Your task to perform on an android device: turn on the 24-hour format for clock Image 0: 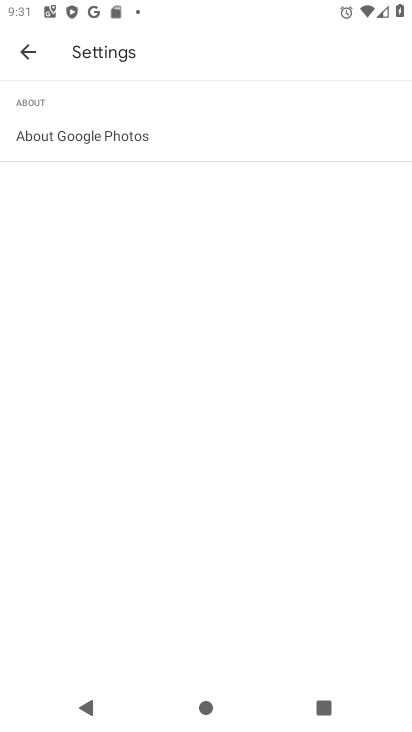
Step 0: press home button
Your task to perform on an android device: turn on the 24-hour format for clock Image 1: 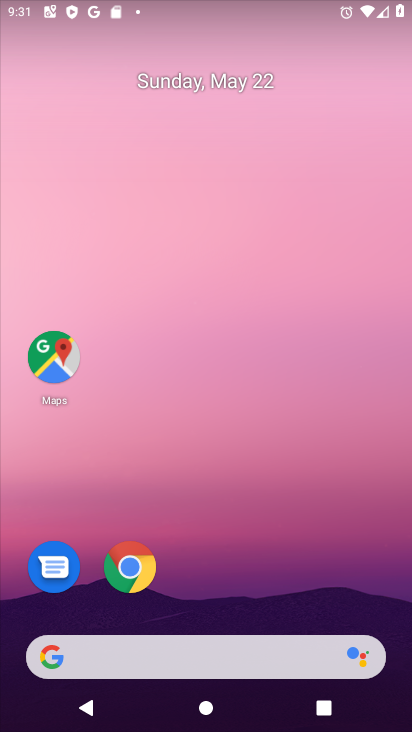
Step 1: drag from (237, 485) to (254, 104)
Your task to perform on an android device: turn on the 24-hour format for clock Image 2: 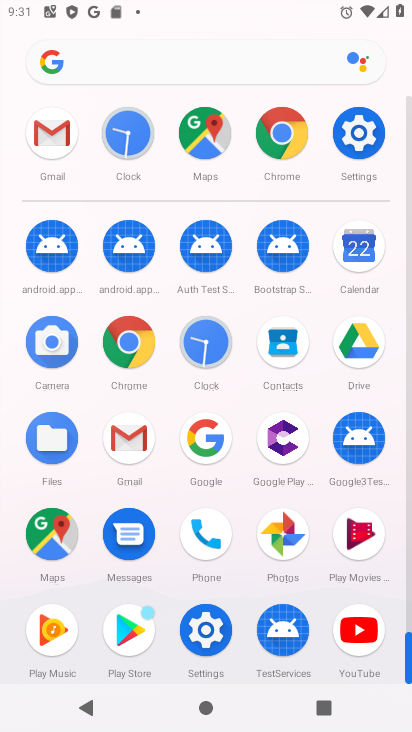
Step 2: click (194, 343)
Your task to perform on an android device: turn on the 24-hour format for clock Image 3: 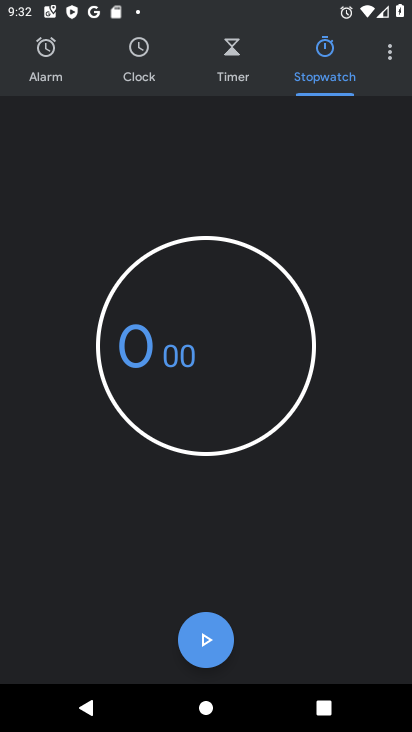
Step 3: press home button
Your task to perform on an android device: turn on the 24-hour format for clock Image 4: 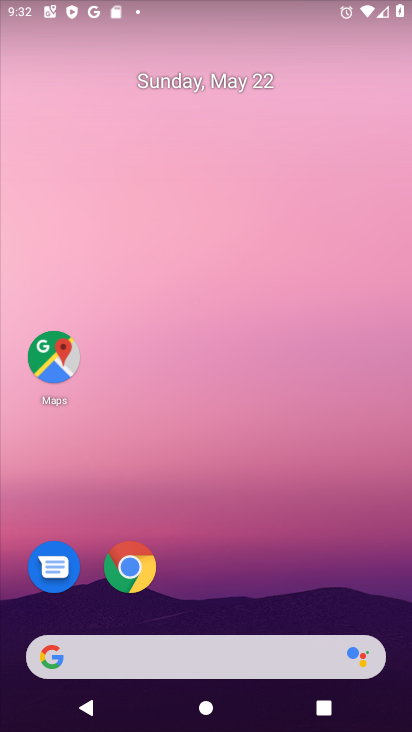
Step 4: drag from (212, 587) to (402, 444)
Your task to perform on an android device: turn on the 24-hour format for clock Image 5: 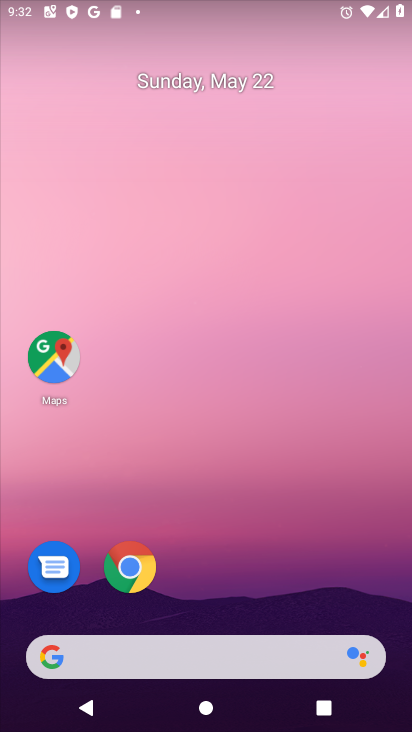
Step 5: drag from (224, 574) to (241, 2)
Your task to perform on an android device: turn on the 24-hour format for clock Image 6: 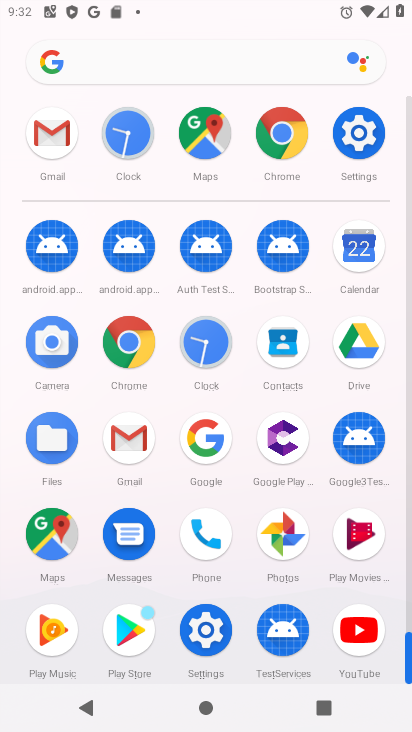
Step 6: click (373, 169)
Your task to perform on an android device: turn on the 24-hour format for clock Image 7: 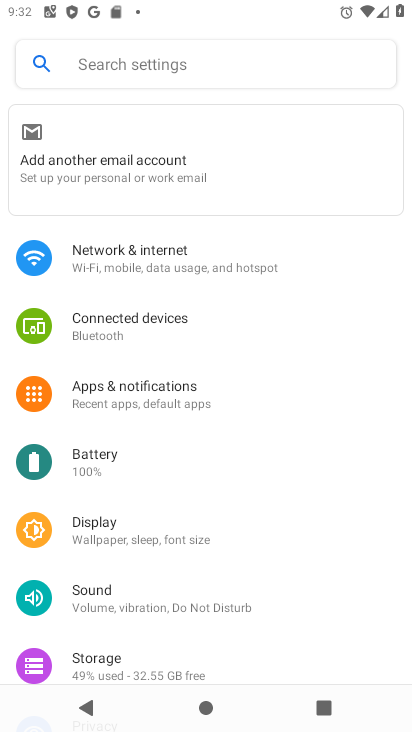
Step 7: drag from (114, 603) to (163, 115)
Your task to perform on an android device: turn on the 24-hour format for clock Image 8: 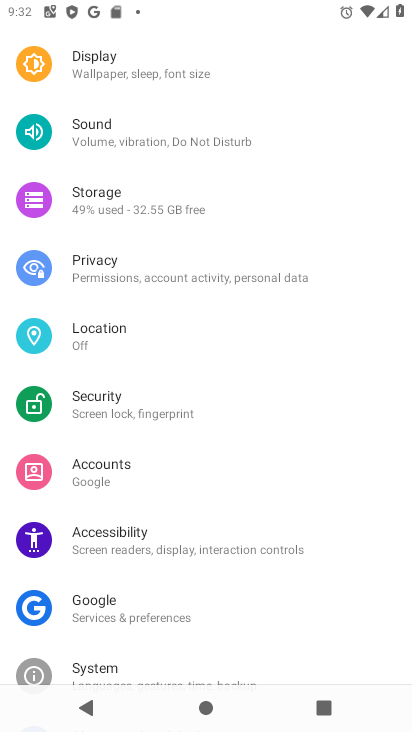
Step 8: click (100, 675)
Your task to perform on an android device: turn on the 24-hour format for clock Image 9: 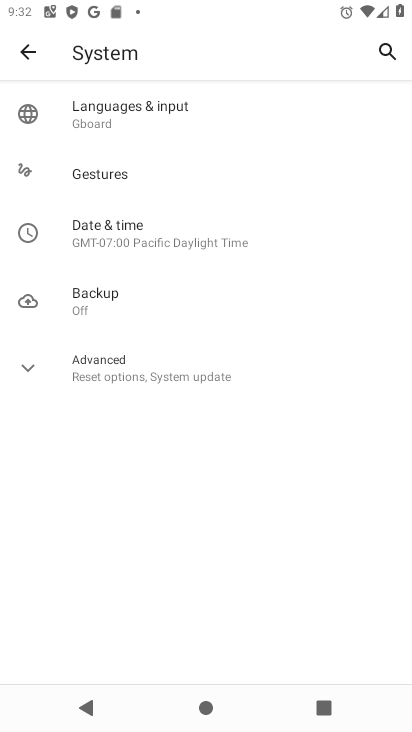
Step 9: click (129, 238)
Your task to perform on an android device: turn on the 24-hour format for clock Image 10: 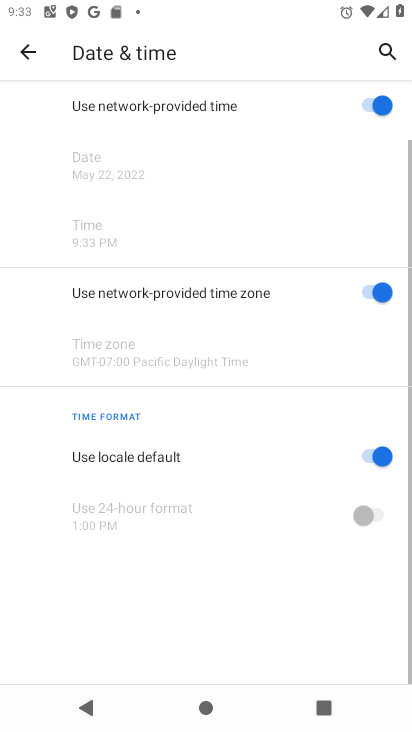
Step 10: click (356, 453)
Your task to perform on an android device: turn on the 24-hour format for clock Image 11: 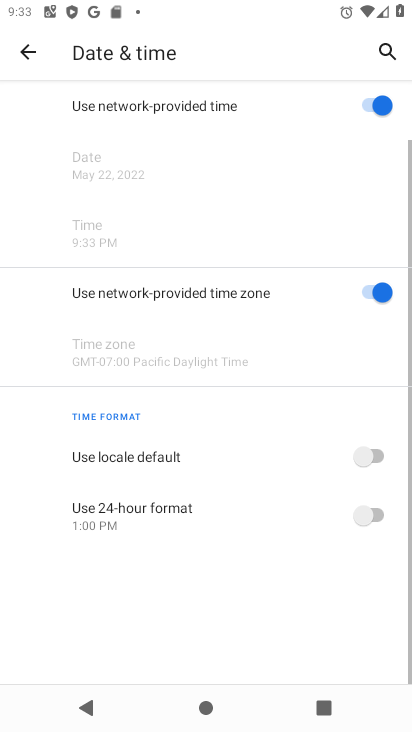
Step 11: click (391, 508)
Your task to perform on an android device: turn on the 24-hour format for clock Image 12: 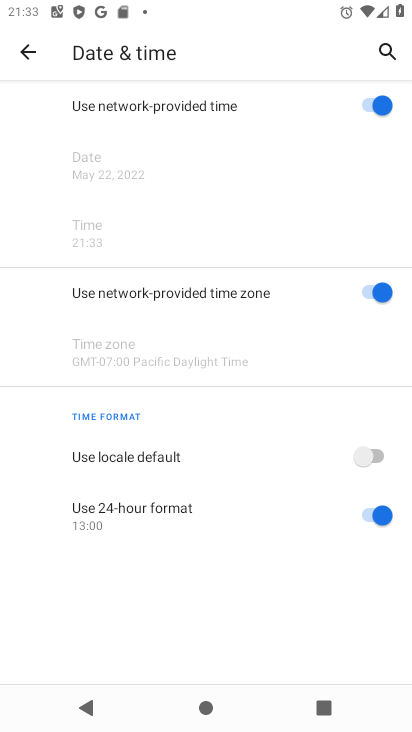
Step 12: task complete